Your task to perform on an android device: turn off javascript in the chrome app Image 0: 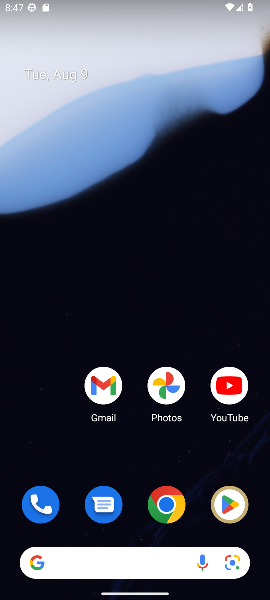
Step 0: click (162, 503)
Your task to perform on an android device: turn off javascript in the chrome app Image 1: 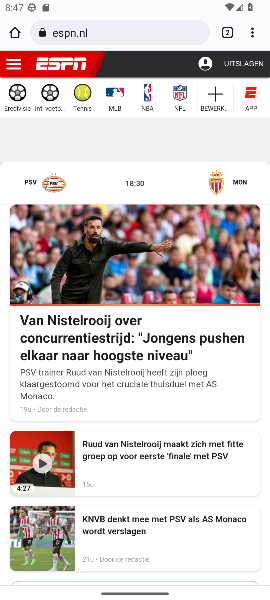
Step 1: click (253, 34)
Your task to perform on an android device: turn off javascript in the chrome app Image 2: 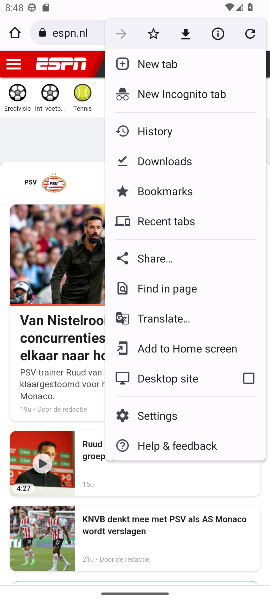
Step 2: click (173, 413)
Your task to perform on an android device: turn off javascript in the chrome app Image 3: 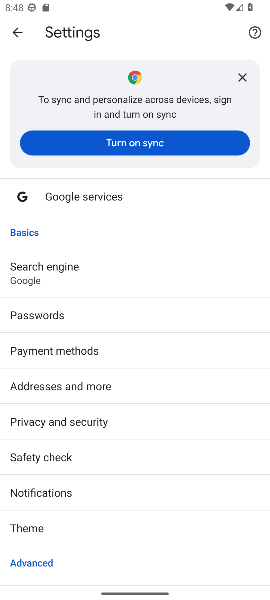
Step 3: drag from (113, 525) to (83, 255)
Your task to perform on an android device: turn off javascript in the chrome app Image 4: 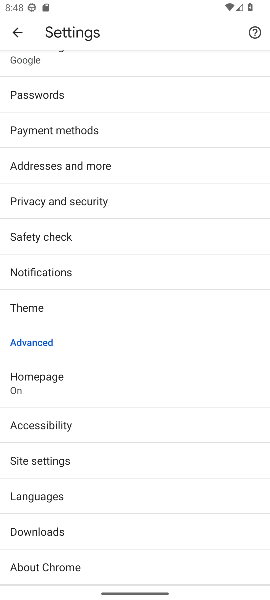
Step 4: click (45, 459)
Your task to perform on an android device: turn off javascript in the chrome app Image 5: 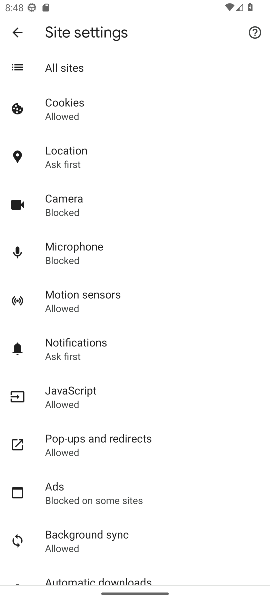
Step 5: click (72, 396)
Your task to perform on an android device: turn off javascript in the chrome app Image 6: 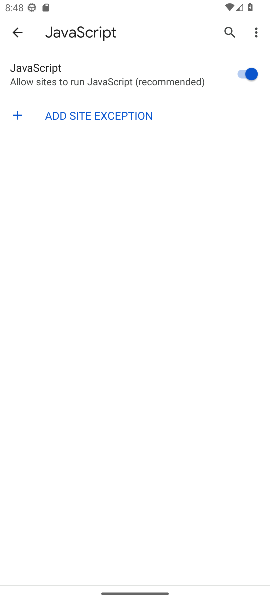
Step 6: click (250, 76)
Your task to perform on an android device: turn off javascript in the chrome app Image 7: 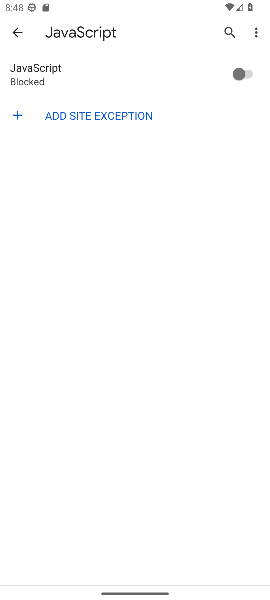
Step 7: task complete